Your task to perform on an android device: Open sound settings Image 0: 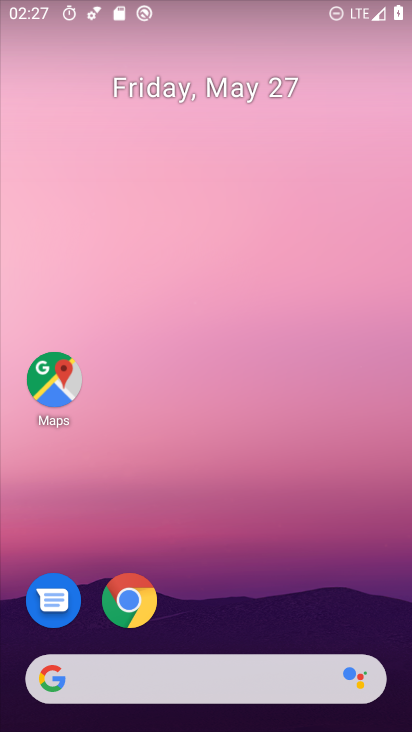
Step 0: drag from (211, 601) to (133, 5)
Your task to perform on an android device: Open sound settings Image 1: 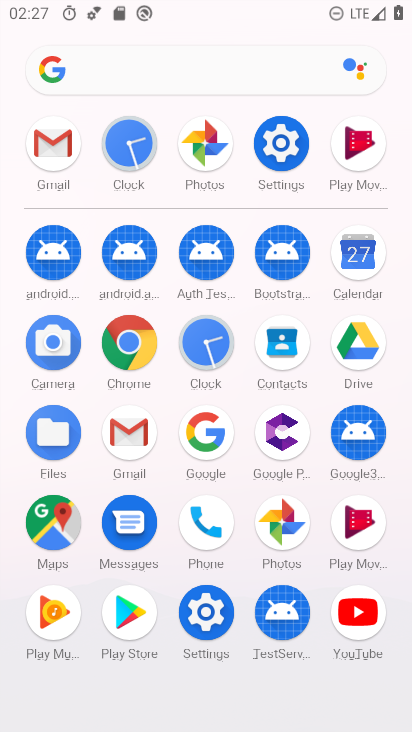
Step 1: click (272, 144)
Your task to perform on an android device: Open sound settings Image 2: 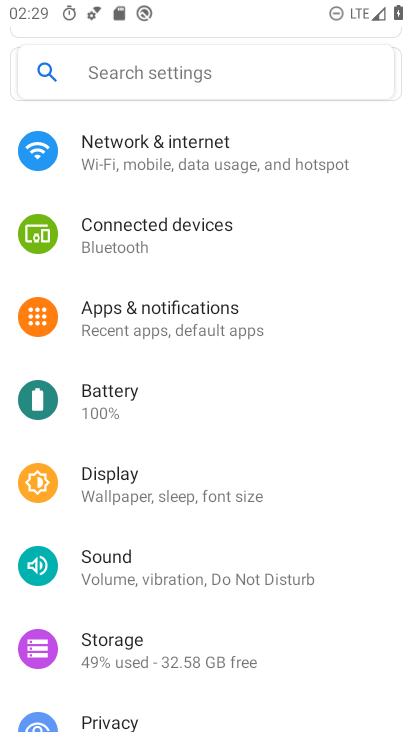
Step 2: click (141, 565)
Your task to perform on an android device: Open sound settings Image 3: 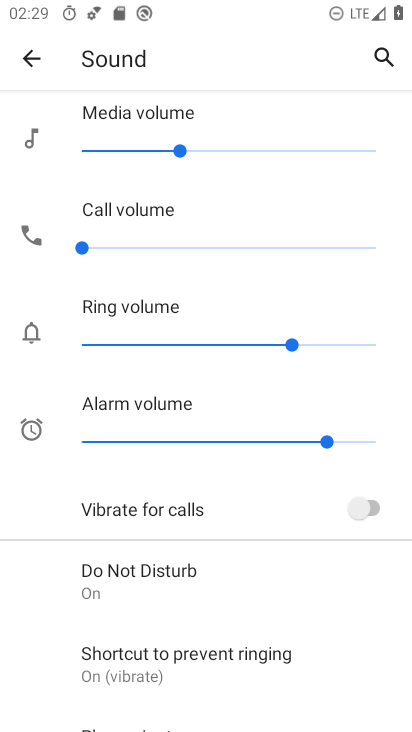
Step 3: task complete